Your task to perform on an android device: Open a new window in the chrome app Image 0: 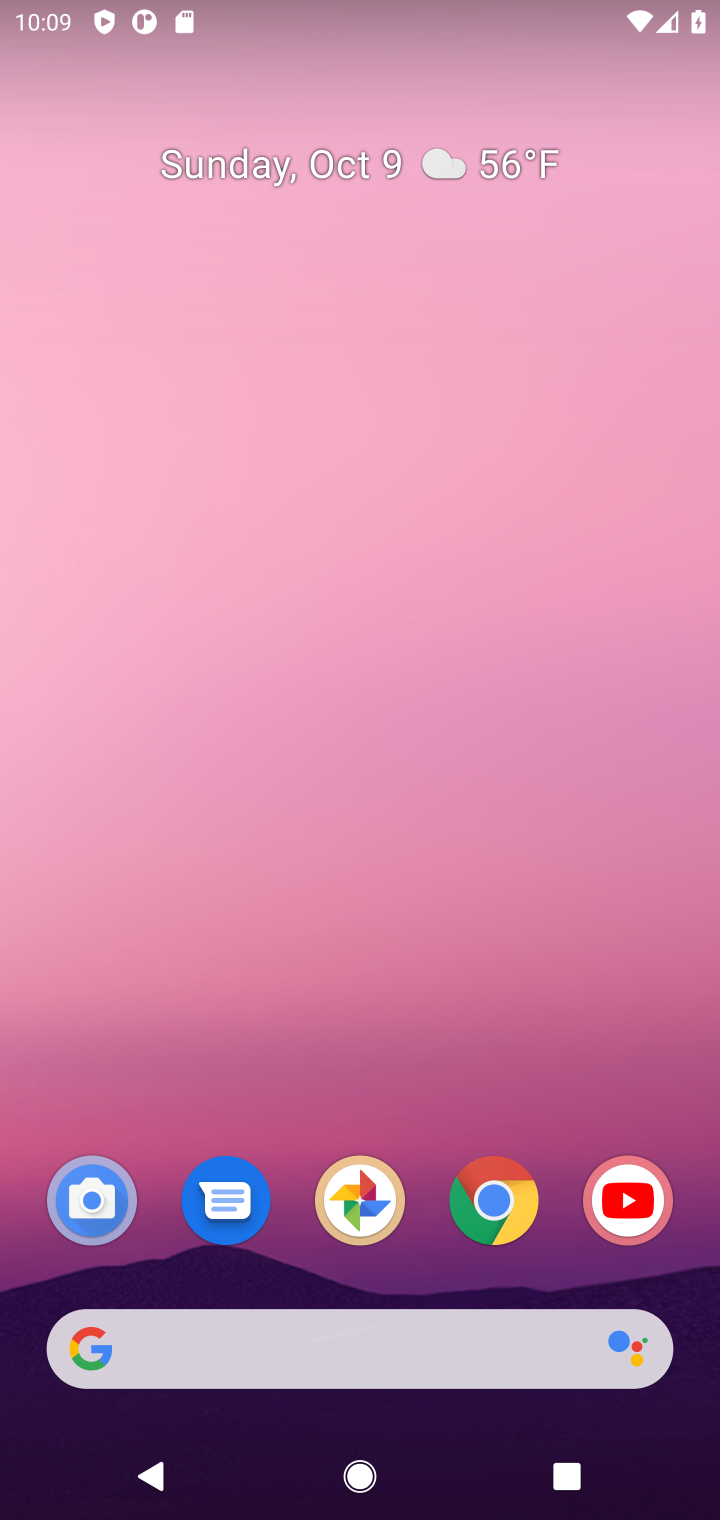
Step 0: click (503, 1216)
Your task to perform on an android device: Open a new window in the chrome app Image 1: 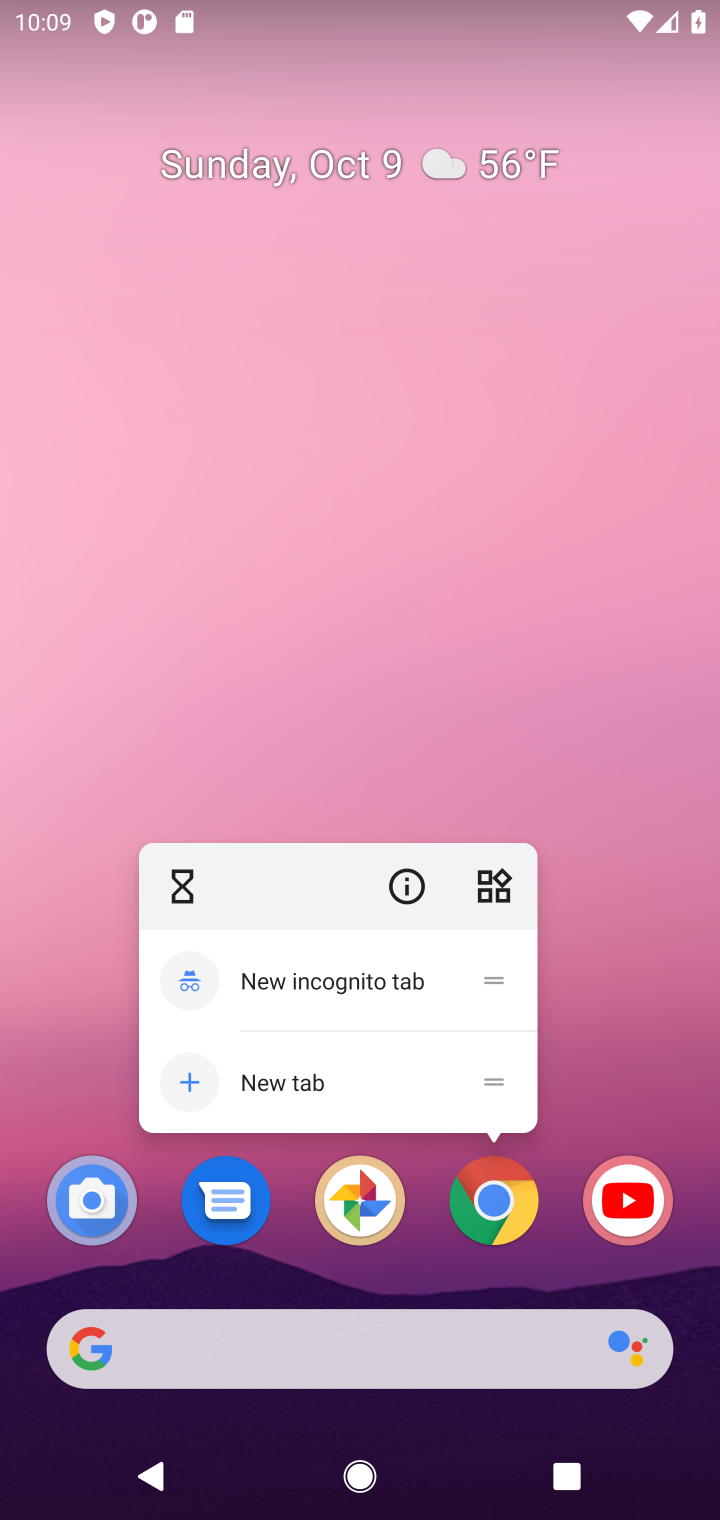
Step 1: click (479, 1242)
Your task to perform on an android device: Open a new window in the chrome app Image 2: 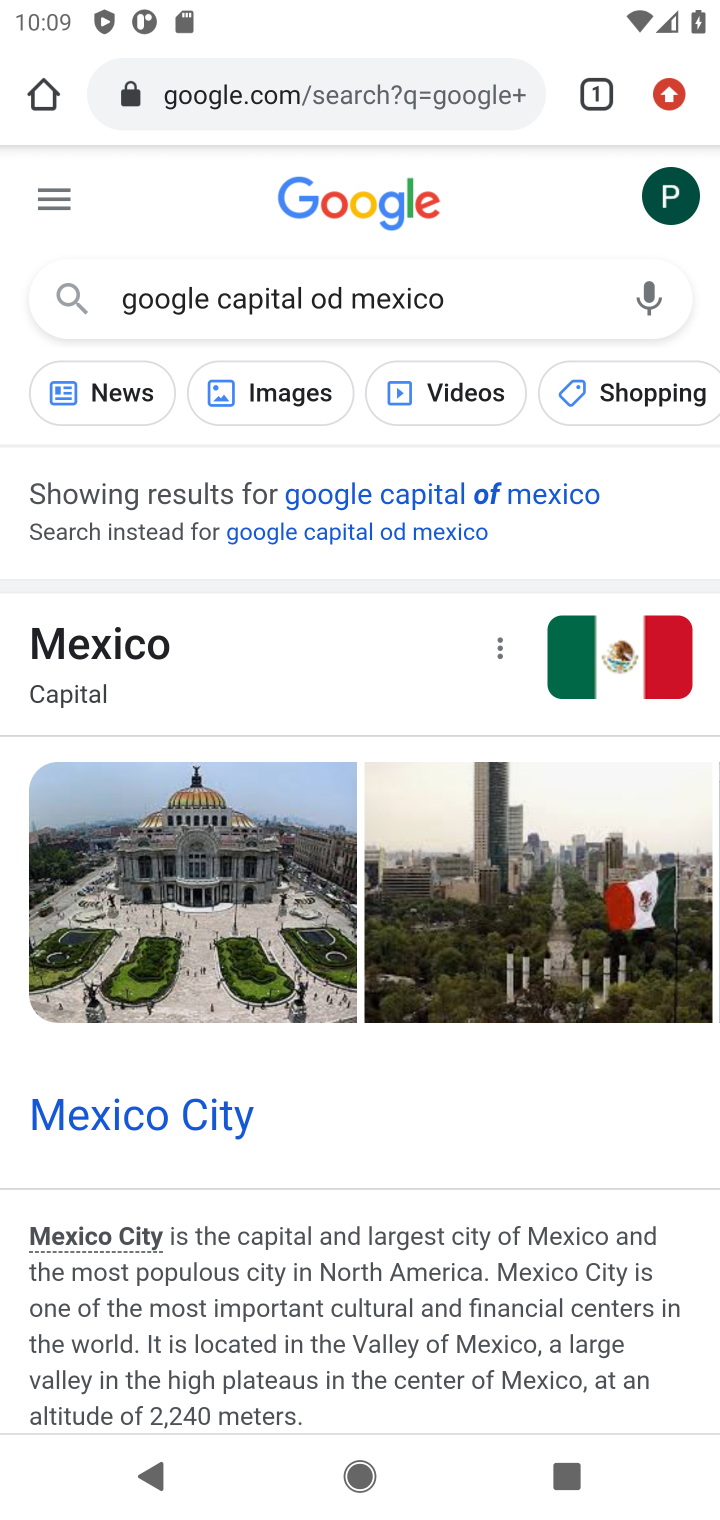
Step 2: click (315, 99)
Your task to perform on an android device: Open a new window in the chrome app Image 3: 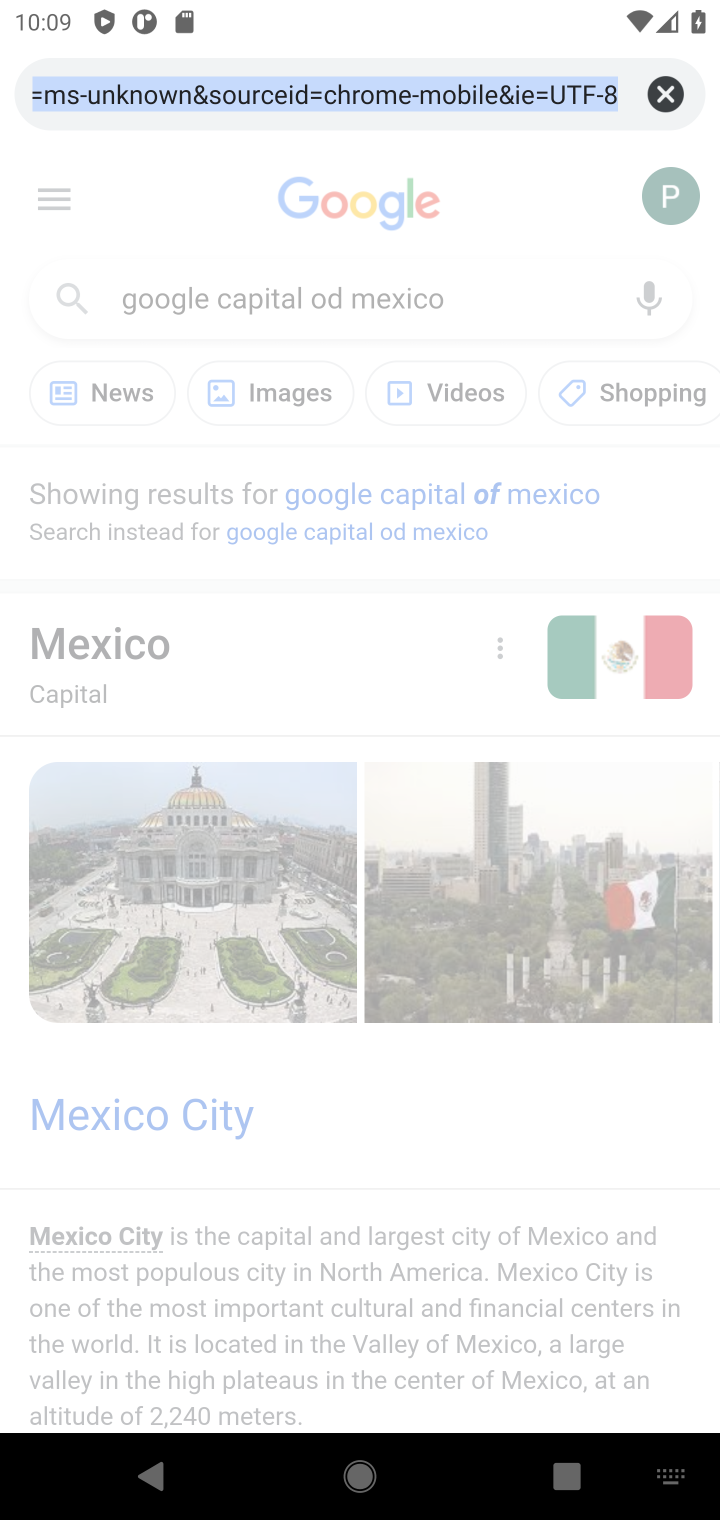
Step 3: click (652, 85)
Your task to perform on an android device: Open a new window in the chrome app Image 4: 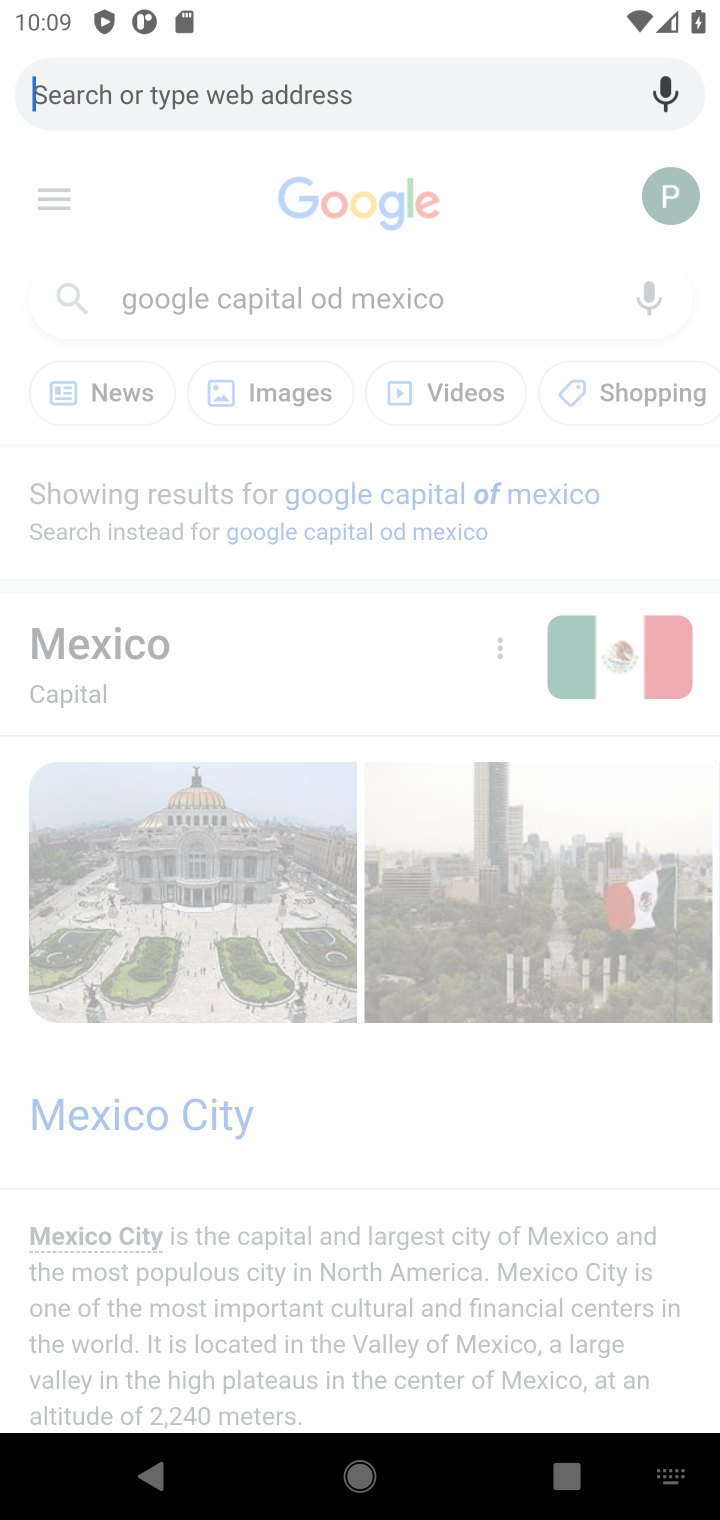
Step 4: press back button
Your task to perform on an android device: Open a new window in the chrome app Image 5: 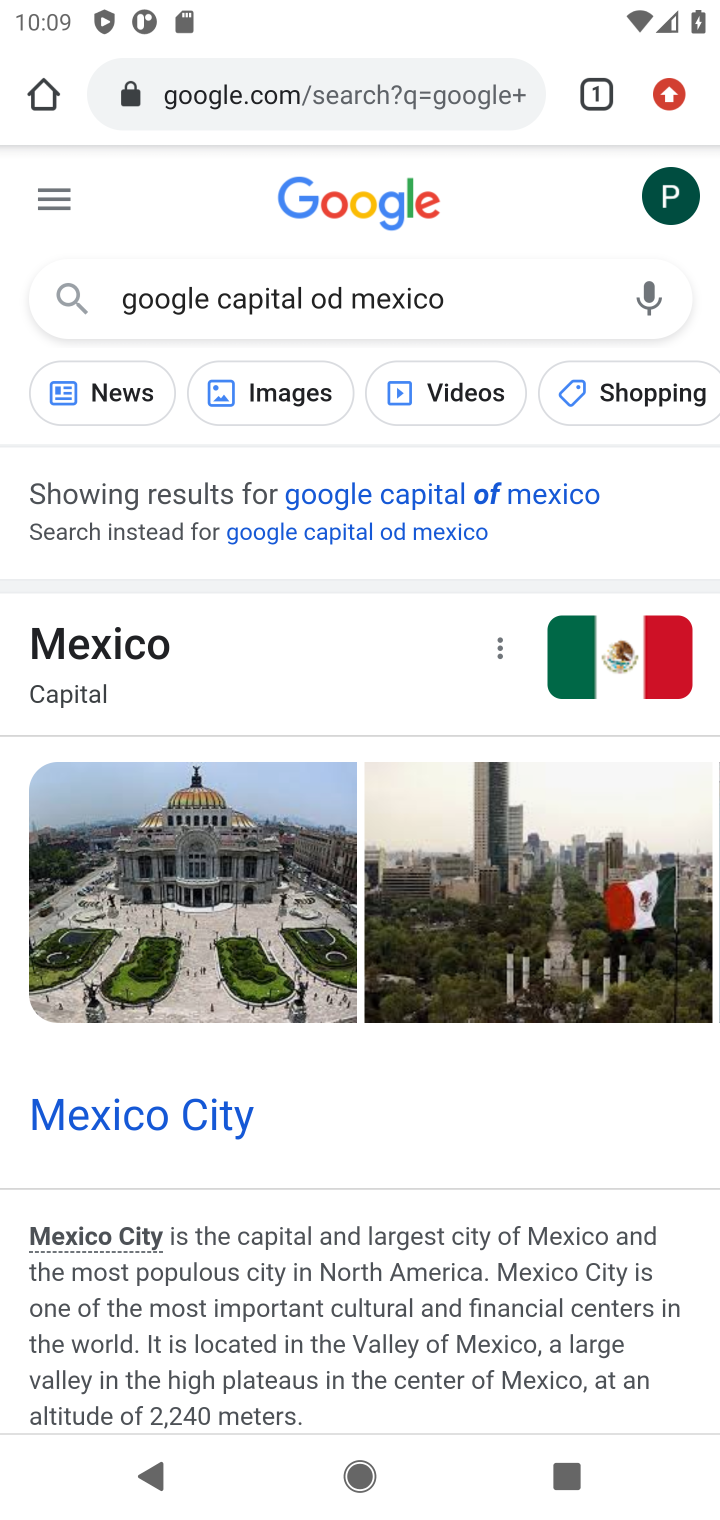
Step 5: click (665, 116)
Your task to perform on an android device: Open a new window in the chrome app Image 6: 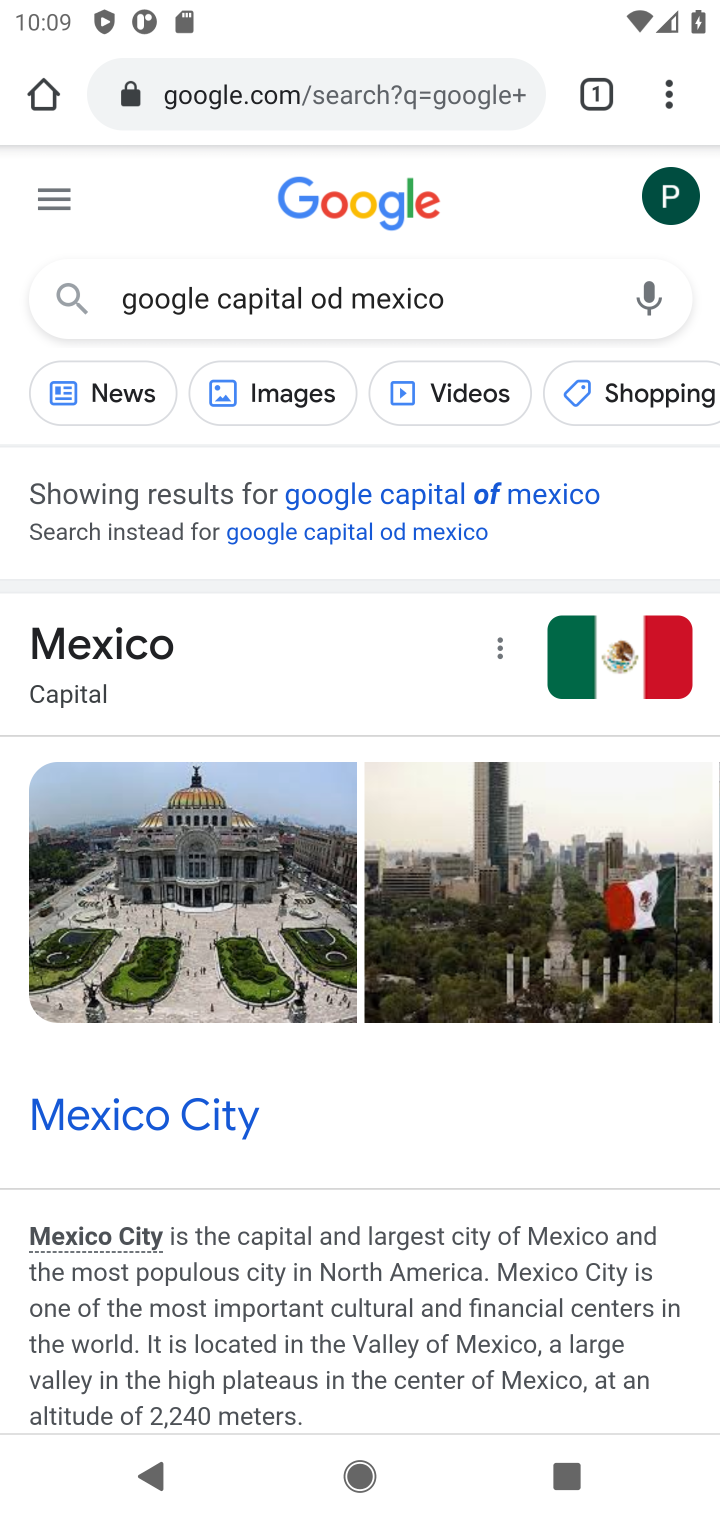
Step 6: click (572, 69)
Your task to perform on an android device: Open a new window in the chrome app Image 7: 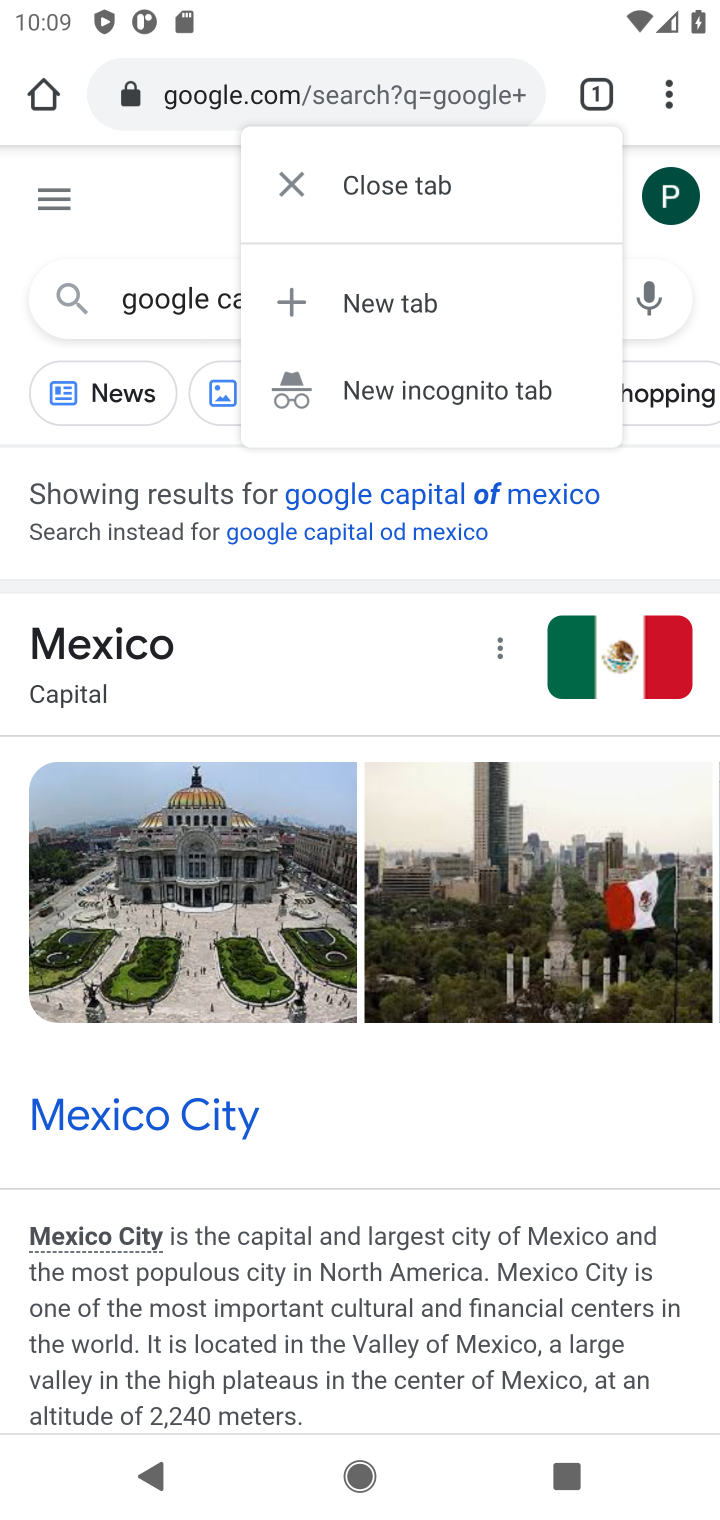
Step 7: click (398, 292)
Your task to perform on an android device: Open a new window in the chrome app Image 8: 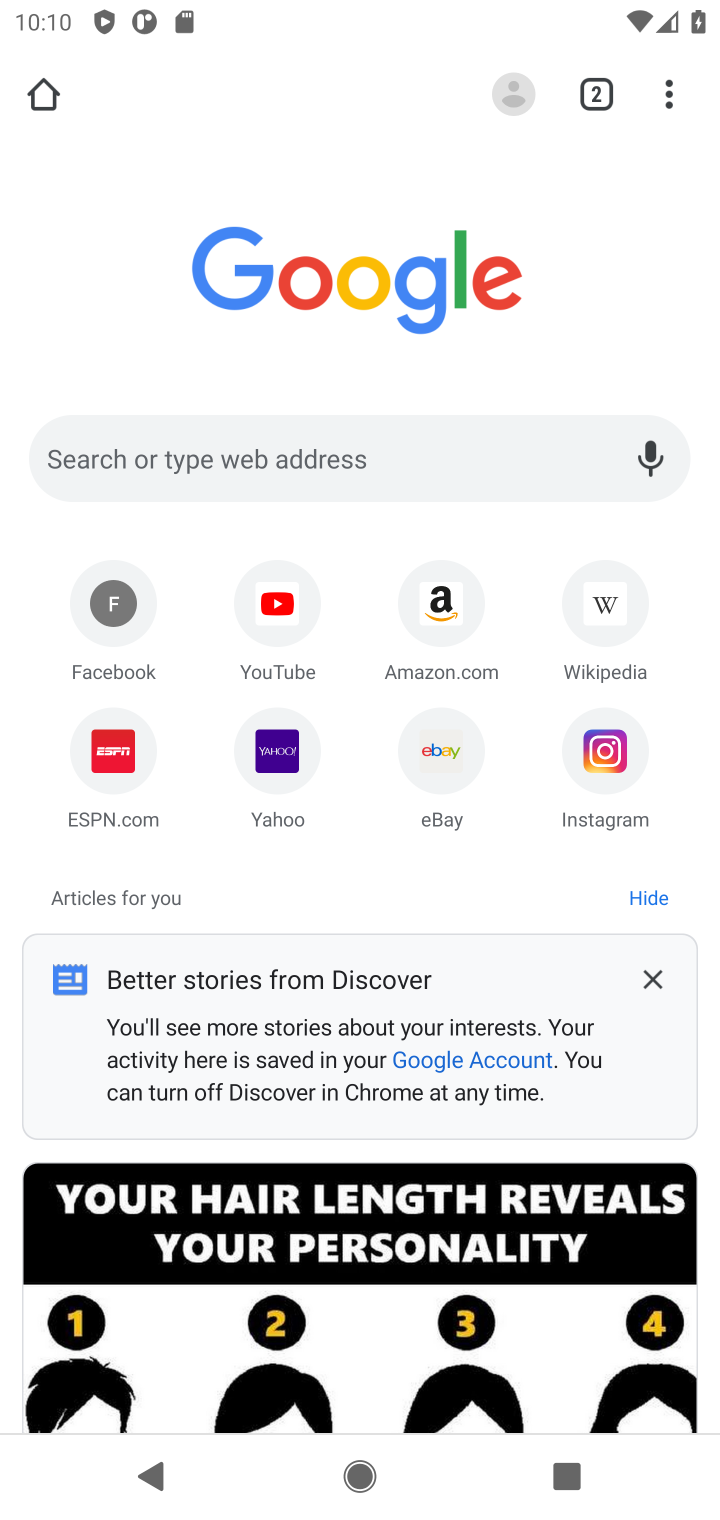
Step 8: task complete